Your task to perform on an android device: check out phone information Image 0: 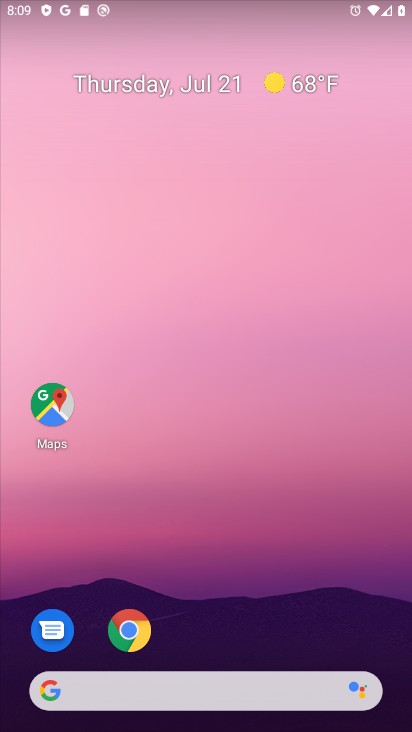
Step 0: drag from (280, 467) to (153, 46)
Your task to perform on an android device: check out phone information Image 1: 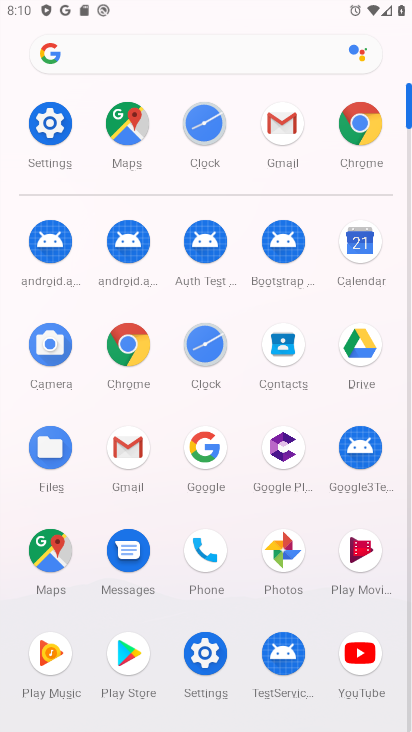
Step 1: click (224, 654)
Your task to perform on an android device: check out phone information Image 2: 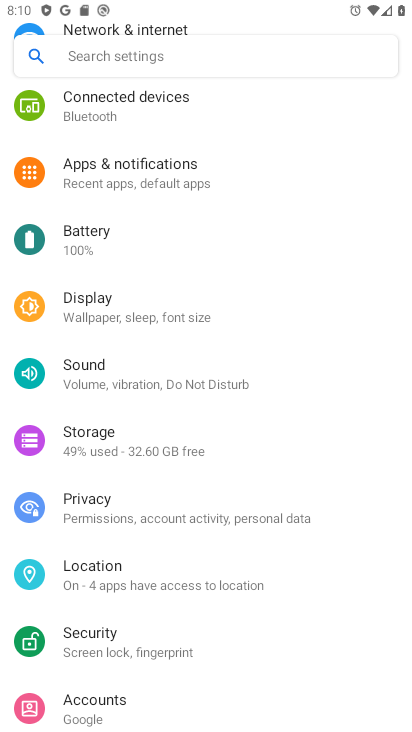
Step 2: drag from (155, 490) to (128, 28)
Your task to perform on an android device: check out phone information Image 3: 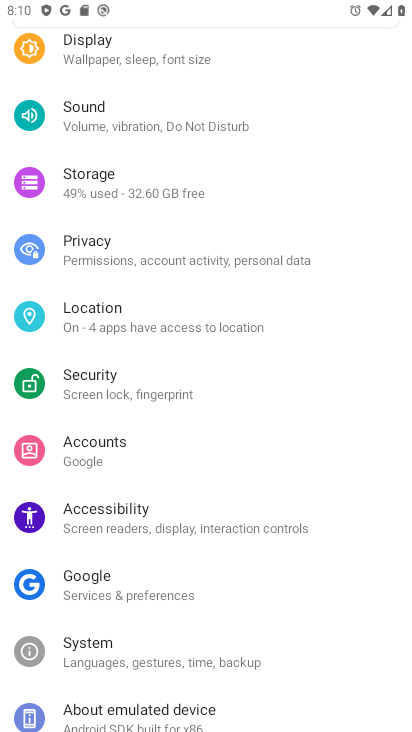
Step 3: drag from (118, 645) to (147, 251)
Your task to perform on an android device: check out phone information Image 4: 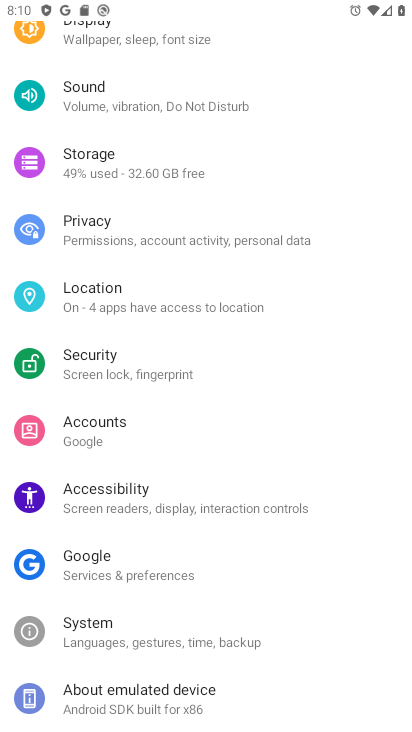
Step 4: click (96, 699)
Your task to perform on an android device: check out phone information Image 5: 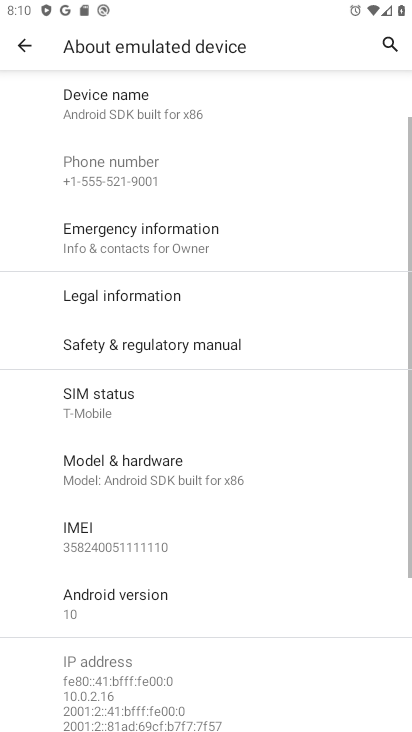
Step 5: task complete